Your task to perform on an android device: toggle notifications settings in the gmail app Image 0: 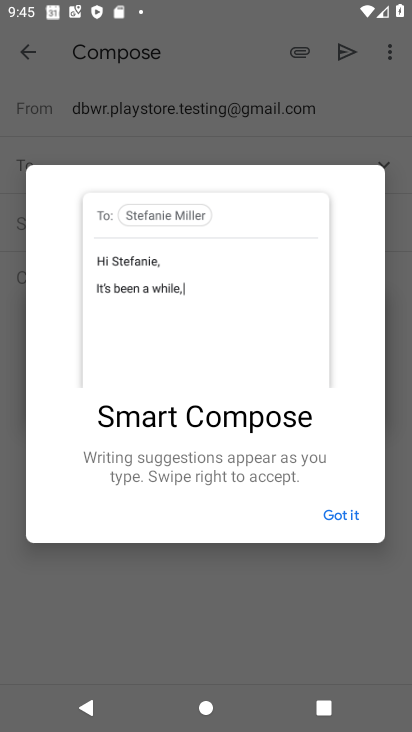
Step 0: press home button
Your task to perform on an android device: toggle notifications settings in the gmail app Image 1: 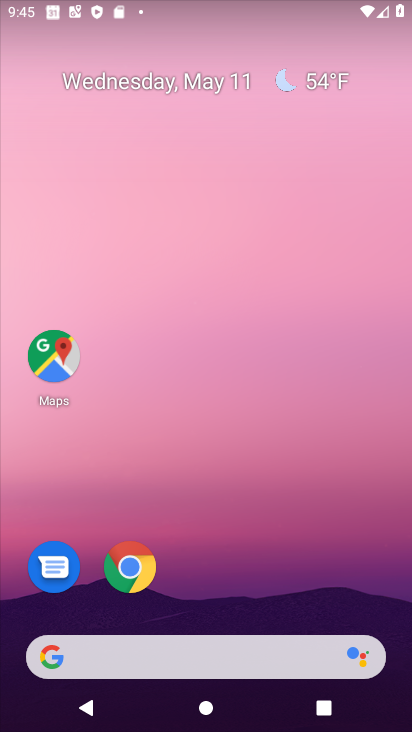
Step 1: drag from (212, 595) to (240, 141)
Your task to perform on an android device: toggle notifications settings in the gmail app Image 2: 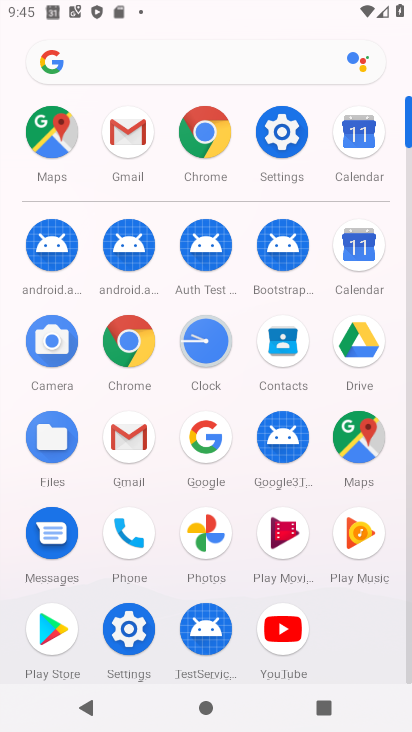
Step 2: click (128, 438)
Your task to perform on an android device: toggle notifications settings in the gmail app Image 3: 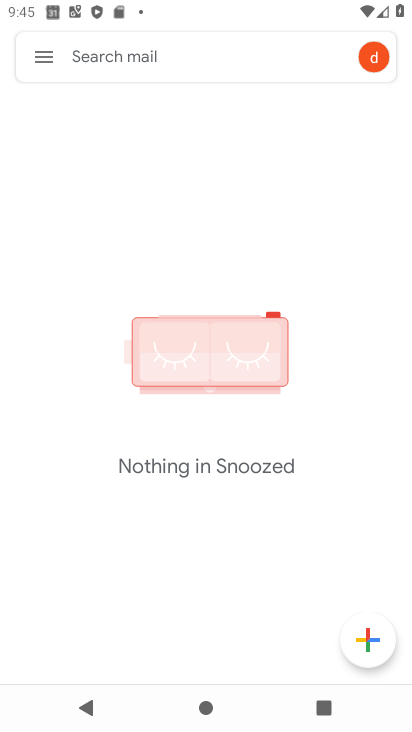
Step 3: click (50, 61)
Your task to perform on an android device: toggle notifications settings in the gmail app Image 4: 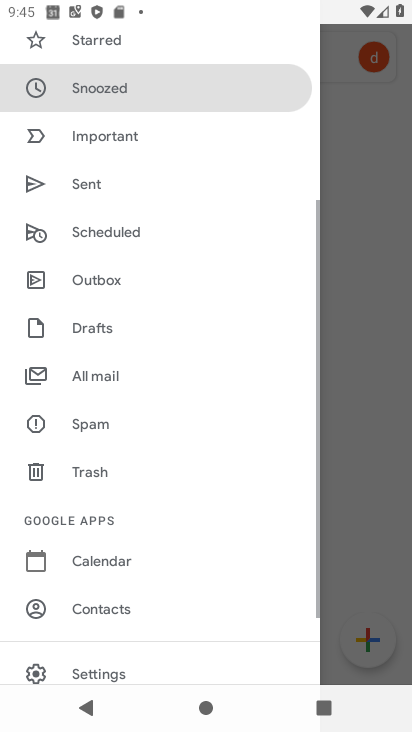
Step 4: drag from (106, 628) to (134, 458)
Your task to perform on an android device: toggle notifications settings in the gmail app Image 5: 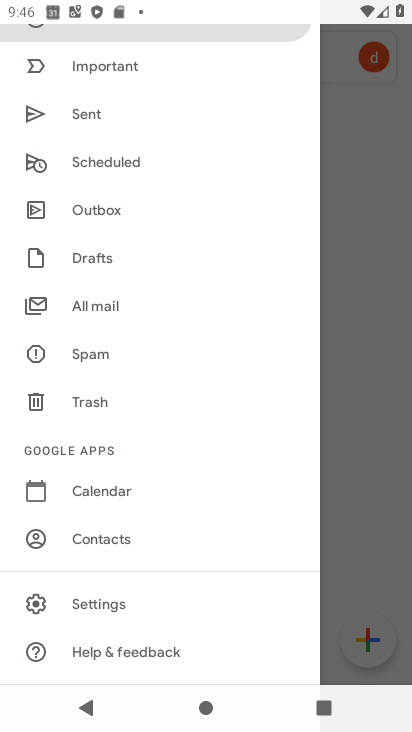
Step 5: click (101, 604)
Your task to perform on an android device: toggle notifications settings in the gmail app Image 6: 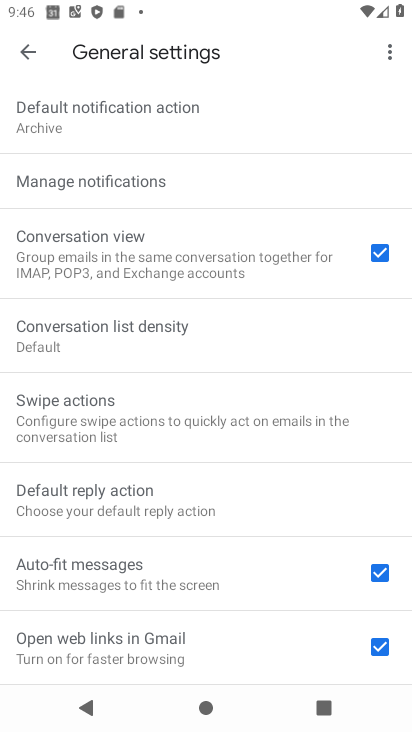
Step 6: click (115, 189)
Your task to perform on an android device: toggle notifications settings in the gmail app Image 7: 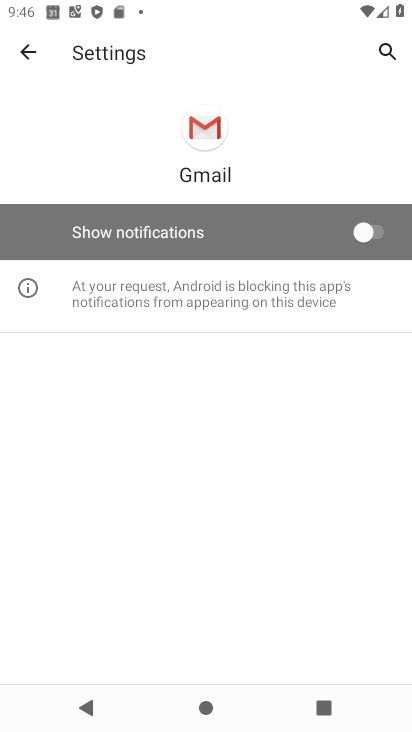
Step 7: click (386, 242)
Your task to perform on an android device: toggle notifications settings in the gmail app Image 8: 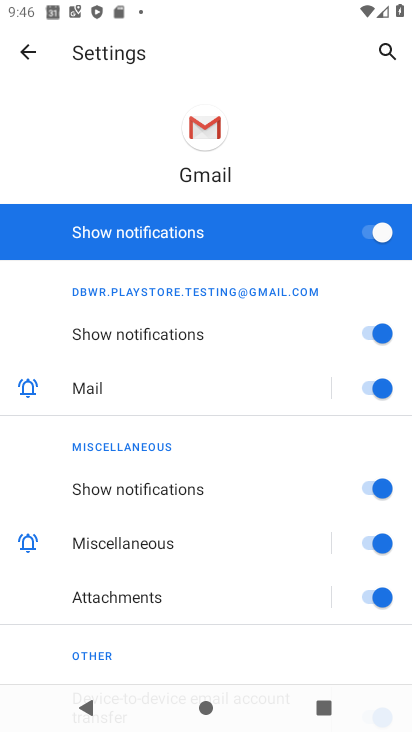
Step 8: task complete